Your task to perform on an android device: open app "Google Play Games" Image 0: 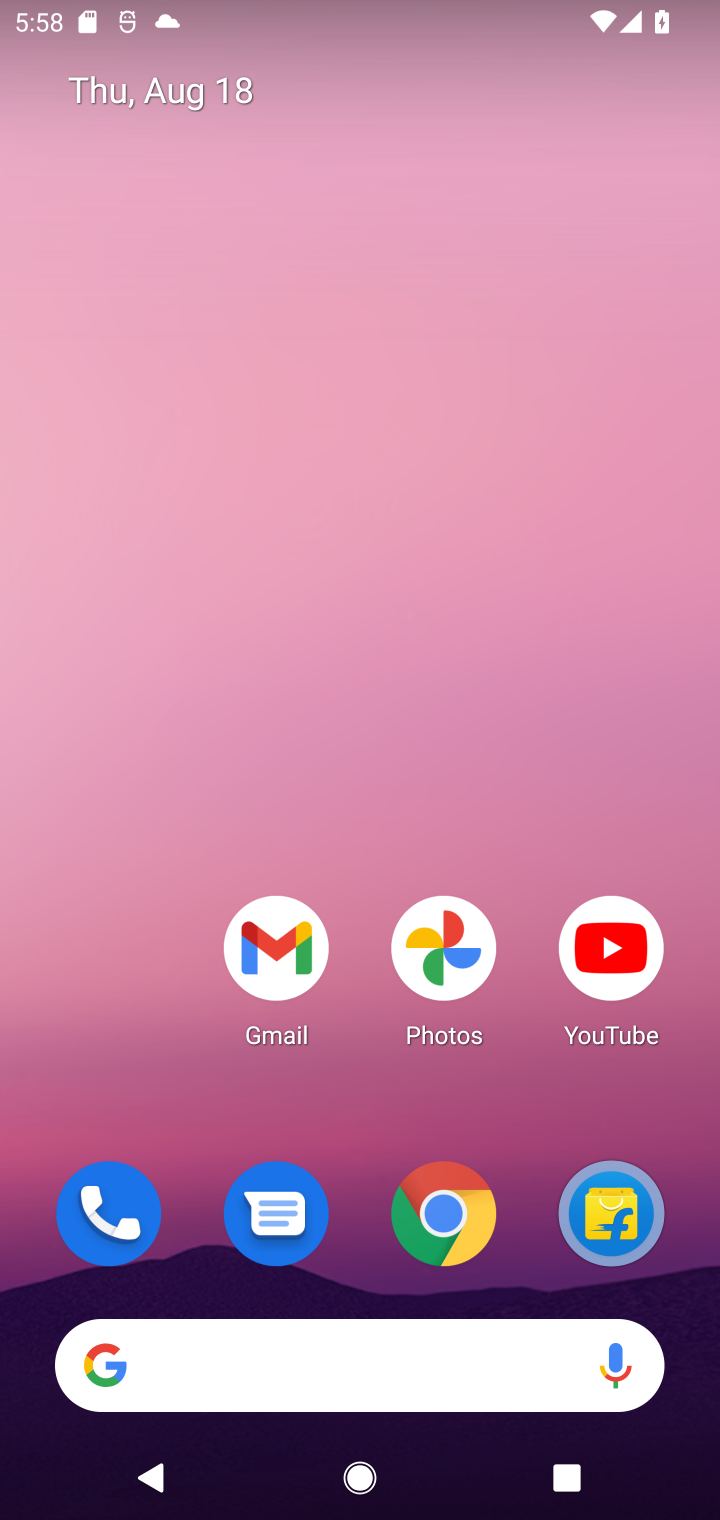
Step 0: drag from (360, 1121) to (408, 2)
Your task to perform on an android device: open app "Google Play Games" Image 1: 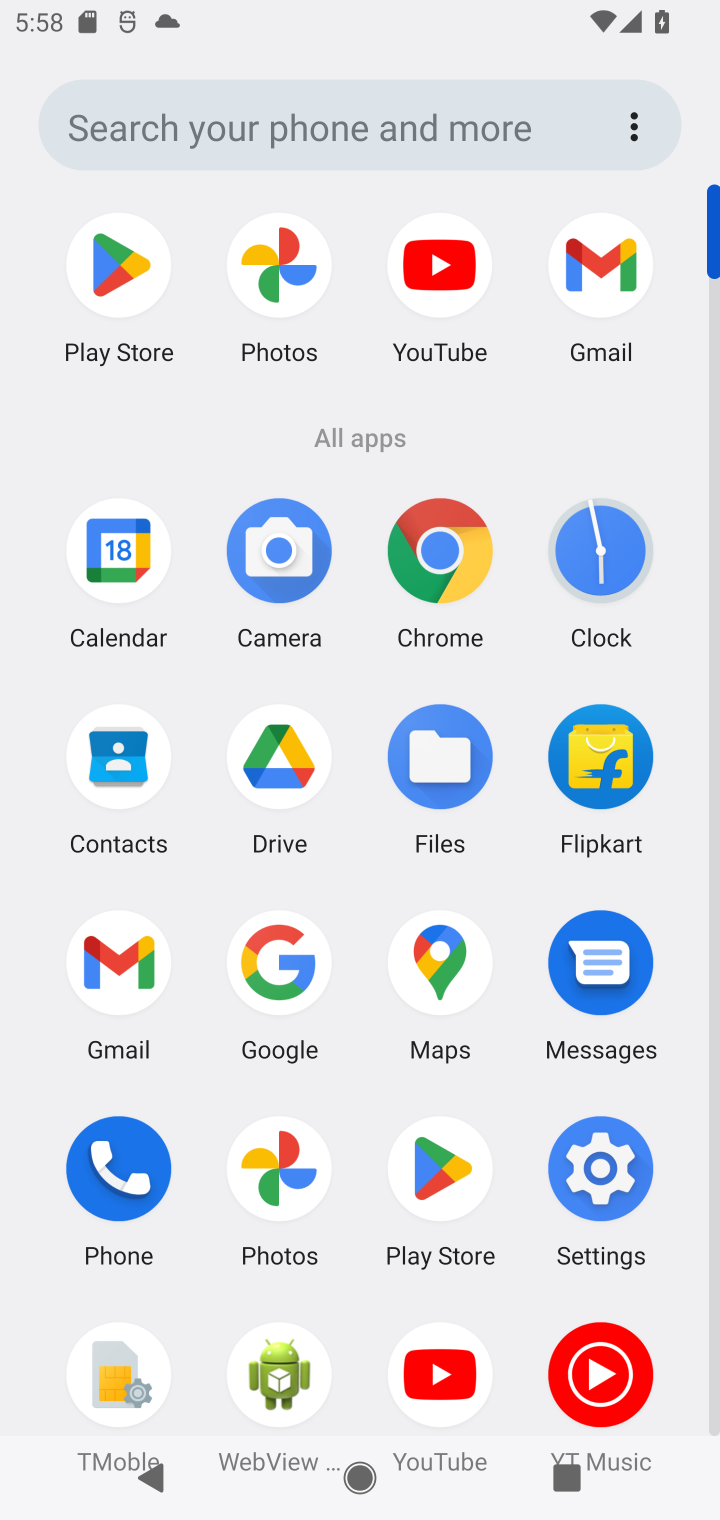
Step 1: click (435, 1160)
Your task to perform on an android device: open app "Google Play Games" Image 2: 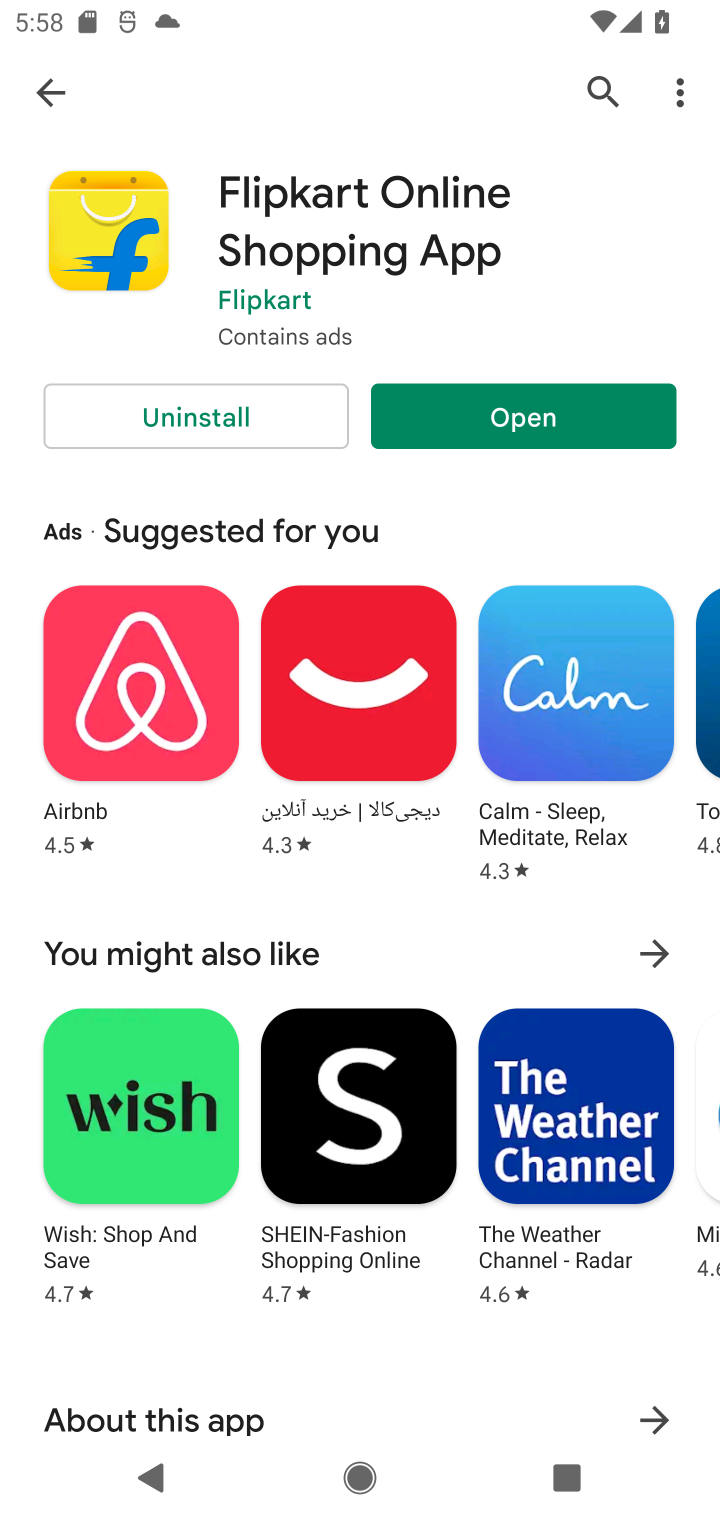
Step 2: click (594, 89)
Your task to perform on an android device: open app "Google Play Games" Image 3: 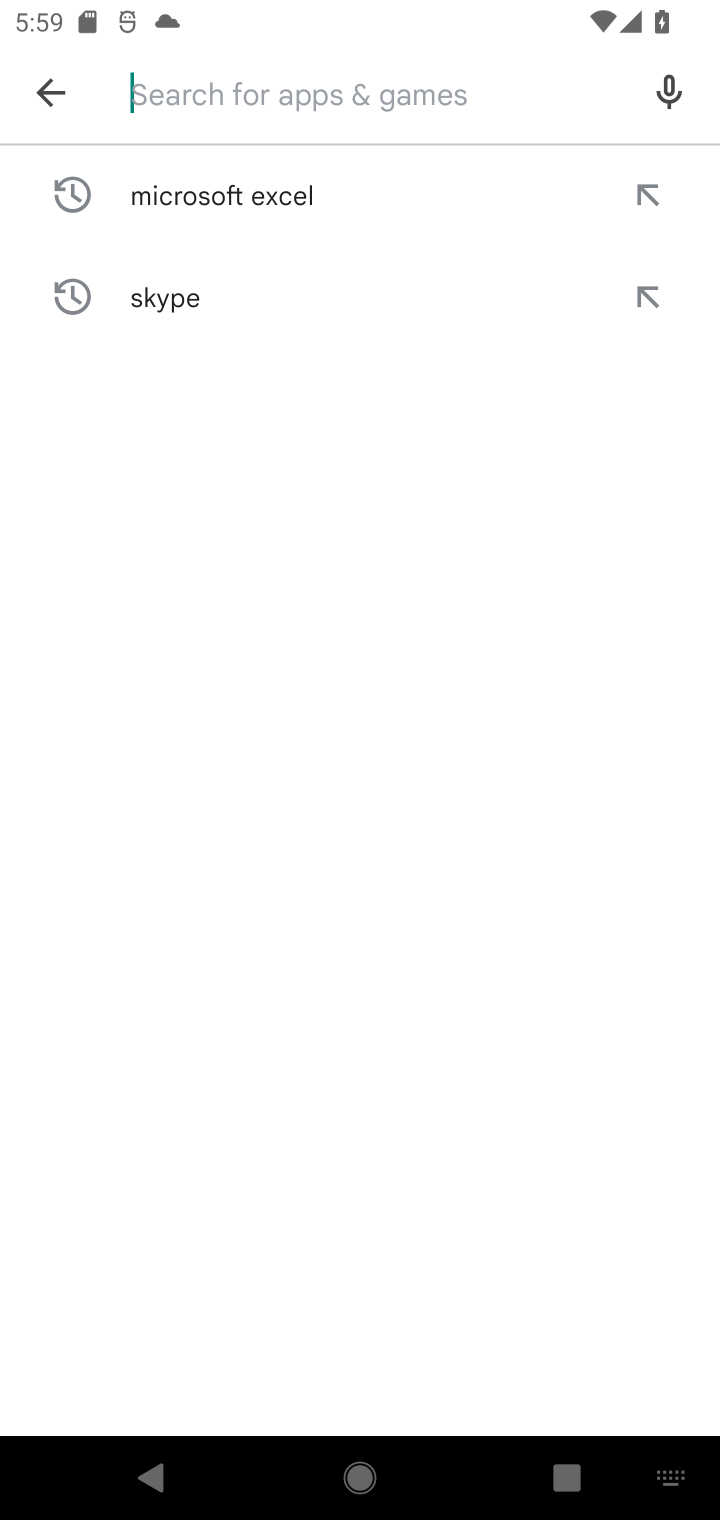
Step 3: type "Google Play Games"
Your task to perform on an android device: open app "Google Play Games" Image 4: 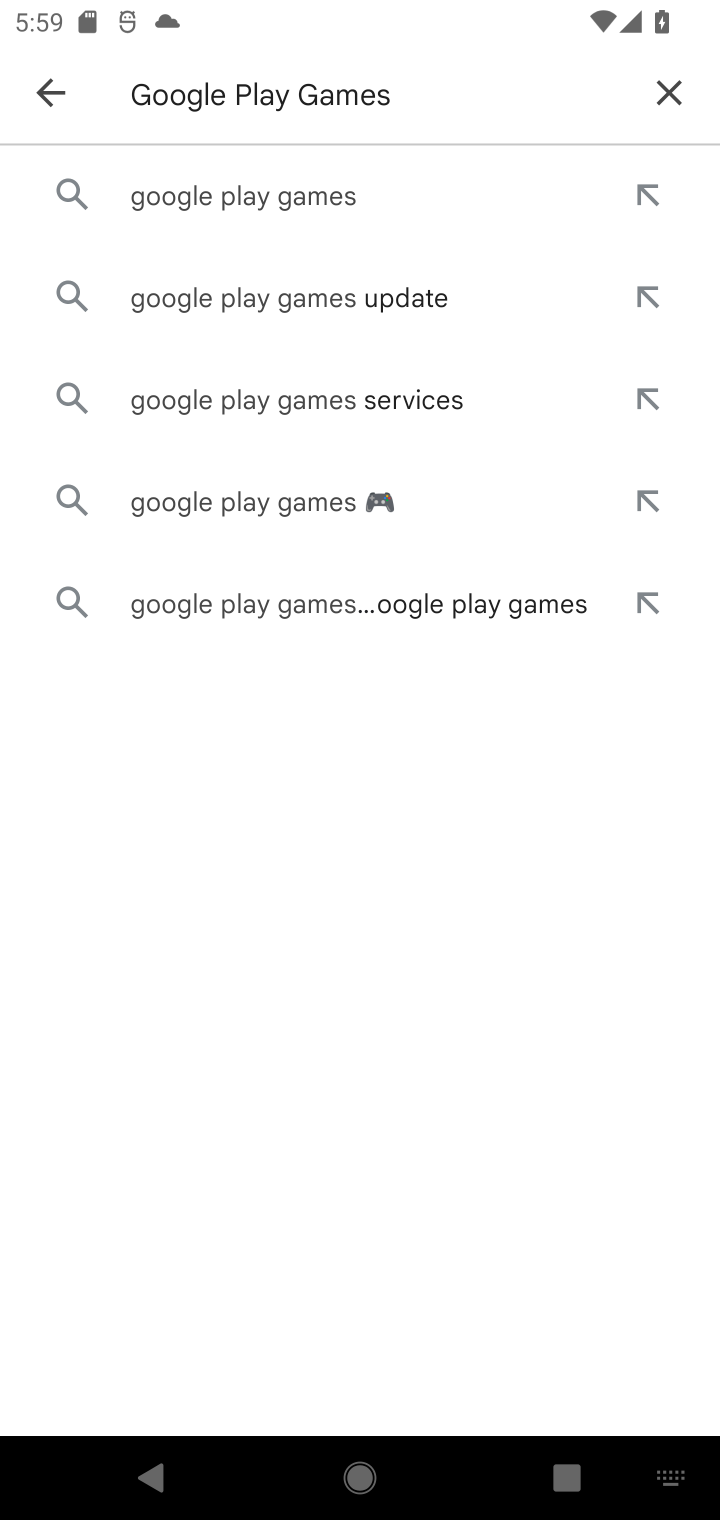
Step 4: click (271, 193)
Your task to perform on an android device: open app "Google Play Games" Image 5: 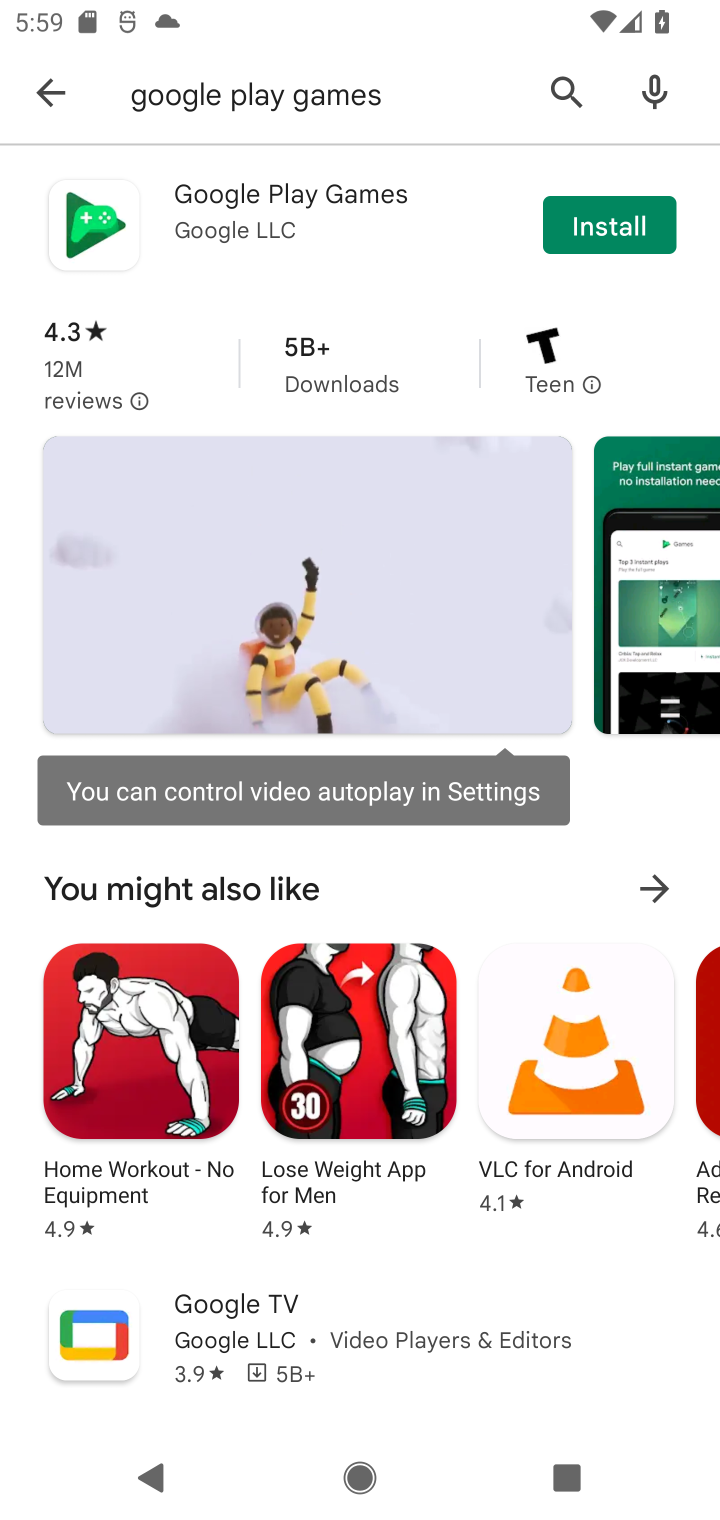
Step 5: task complete